Your task to perform on an android device: Do I have any events this weekend? Image 0: 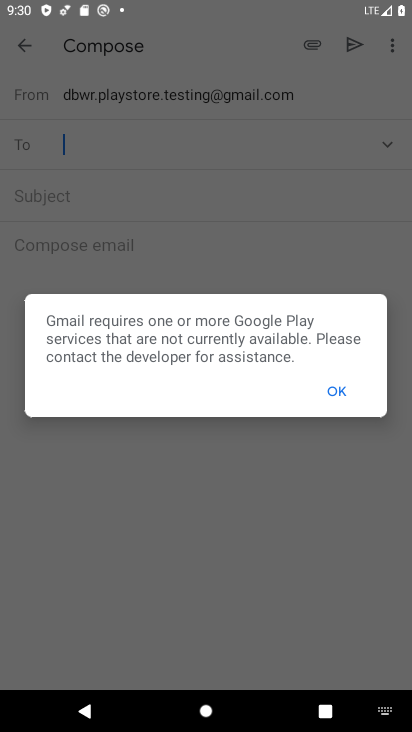
Step 0: press home button
Your task to perform on an android device: Do I have any events this weekend? Image 1: 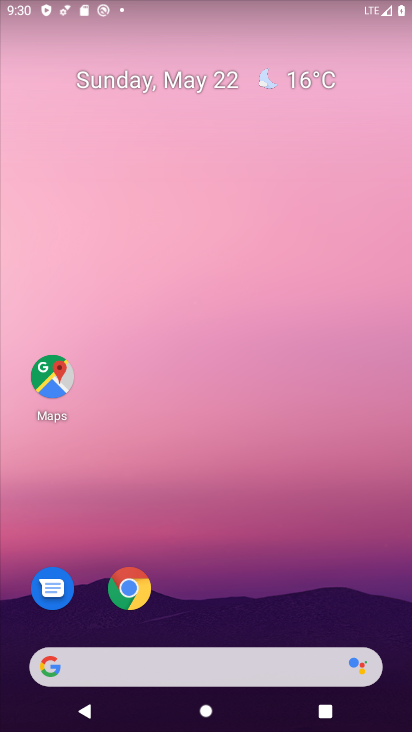
Step 1: drag from (202, 587) to (258, 184)
Your task to perform on an android device: Do I have any events this weekend? Image 2: 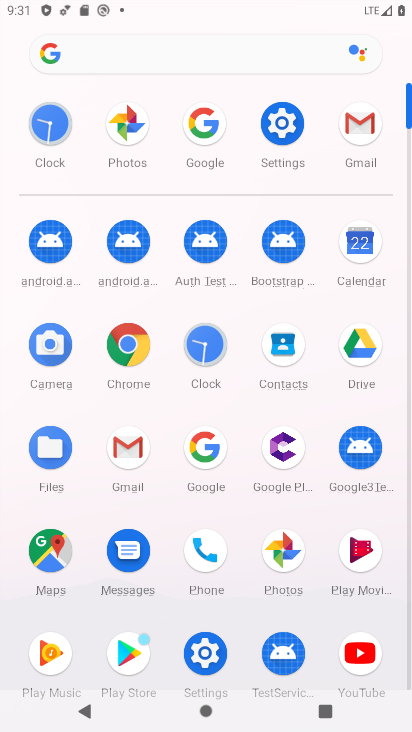
Step 2: click (357, 260)
Your task to perform on an android device: Do I have any events this weekend? Image 3: 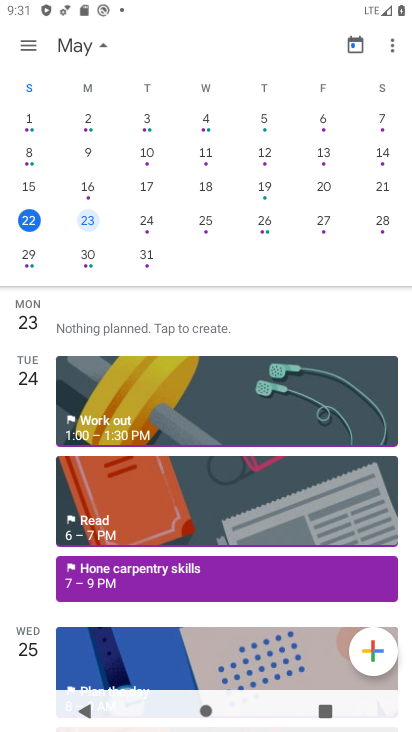
Step 3: task complete